Your task to perform on an android device: Go to notification settings Image 0: 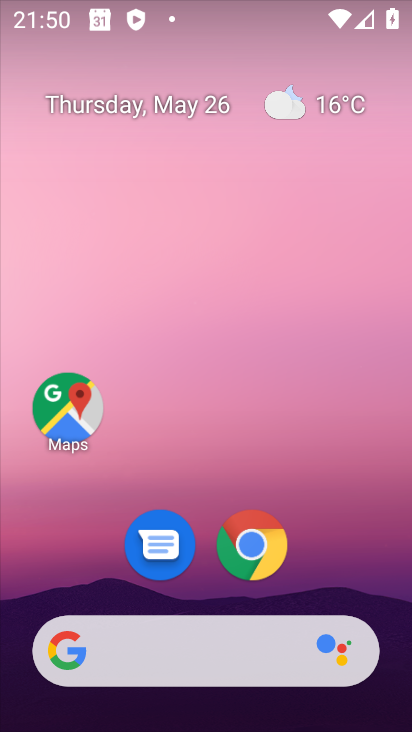
Step 0: drag from (308, 572) to (263, 68)
Your task to perform on an android device: Go to notification settings Image 1: 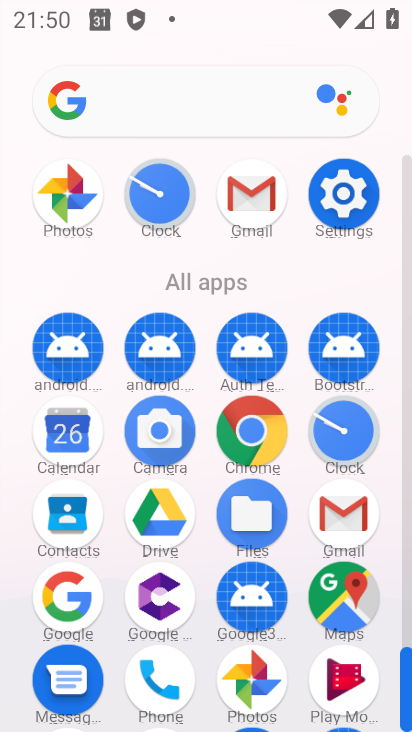
Step 1: click (307, 207)
Your task to perform on an android device: Go to notification settings Image 2: 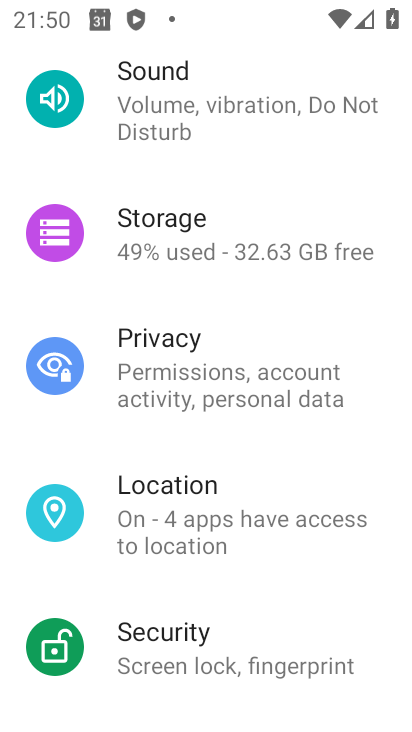
Step 2: drag from (176, 162) to (234, 642)
Your task to perform on an android device: Go to notification settings Image 3: 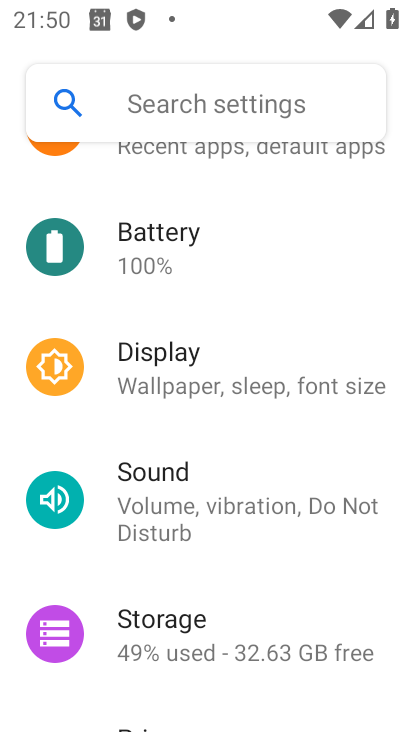
Step 3: drag from (194, 173) to (219, 390)
Your task to perform on an android device: Go to notification settings Image 4: 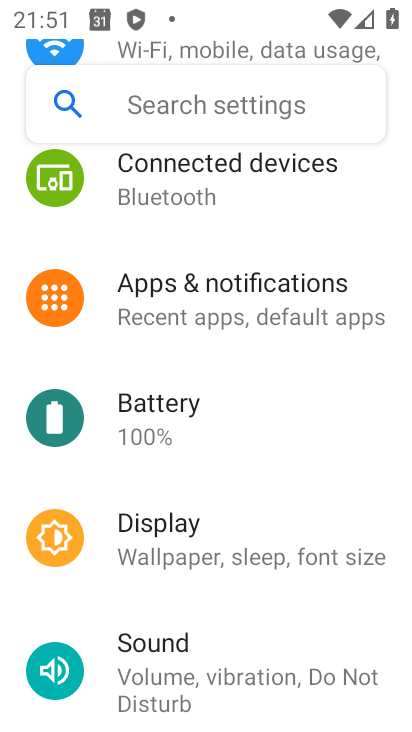
Step 4: click (188, 315)
Your task to perform on an android device: Go to notification settings Image 5: 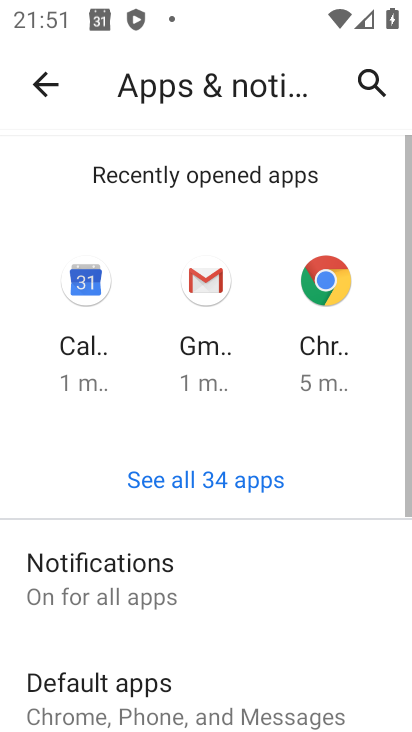
Step 5: click (176, 580)
Your task to perform on an android device: Go to notification settings Image 6: 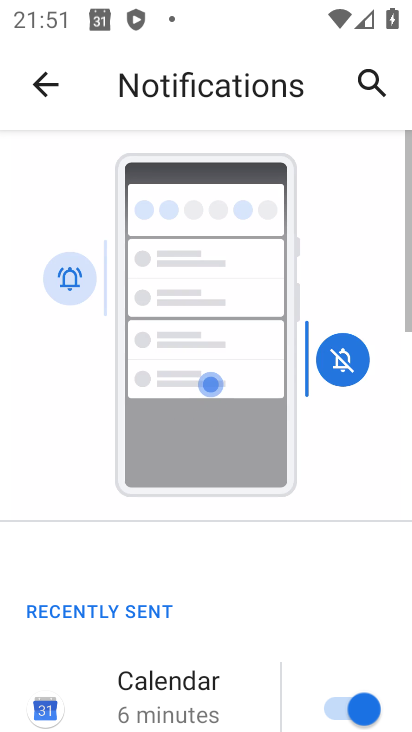
Step 6: drag from (275, 655) to (310, 40)
Your task to perform on an android device: Go to notification settings Image 7: 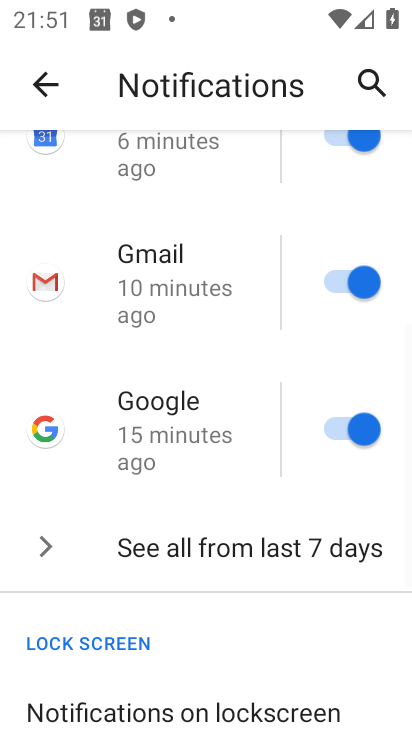
Step 7: drag from (220, 683) to (220, 238)
Your task to perform on an android device: Go to notification settings Image 8: 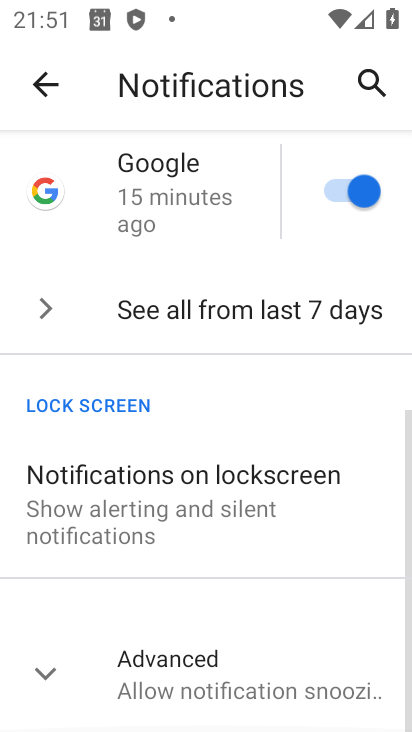
Step 8: click (119, 695)
Your task to perform on an android device: Go to notification settings Image 9: 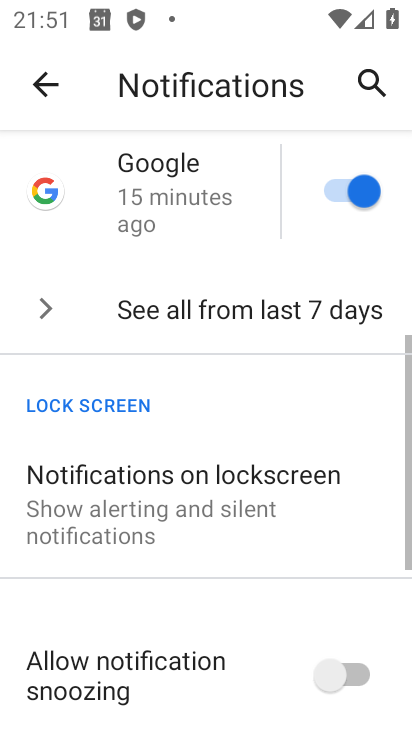
Step 9: drag from (218, 655) to (314, 703)
Your task to perform on an android device: Go to notification settings Image 10: 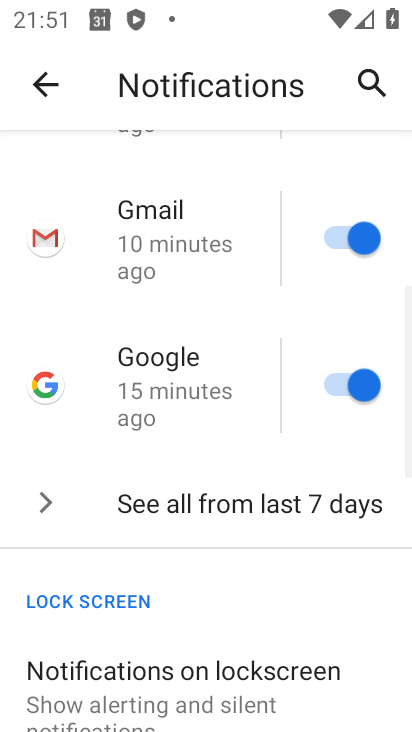
Step 10: drag from (190, 150) to (252, 647)
Your task to perform on an android device: Go to notification settings Image 11: 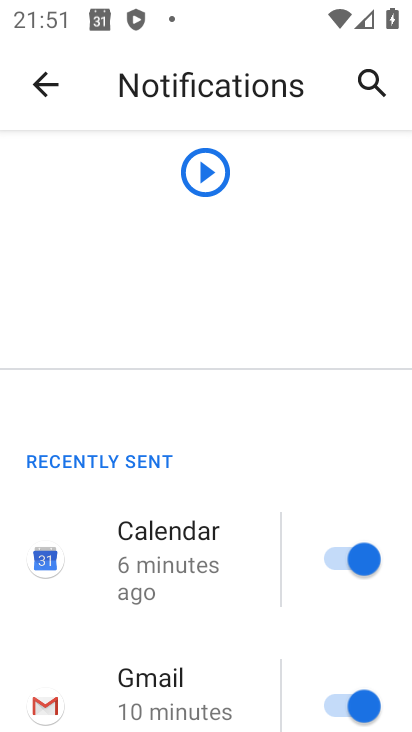
Step 11: drag from (276, 650) to (275, 71)
Your task to perform on an android device: Go to notification settings Image 12: 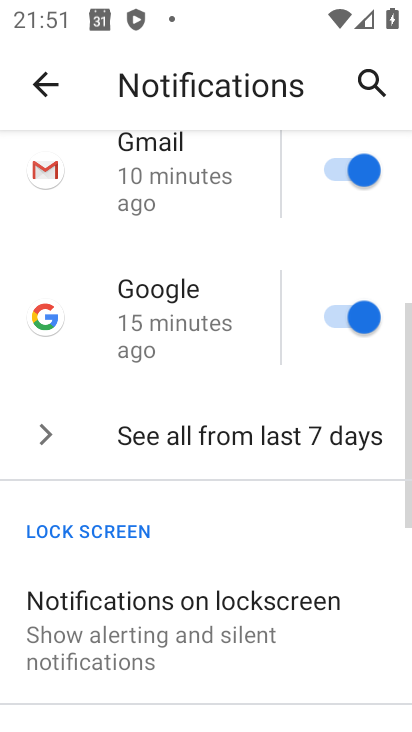
Step 12: drag from (263, 673) to (245, 115)
Your task to perform on an android device: Go to notification settings Image 13: 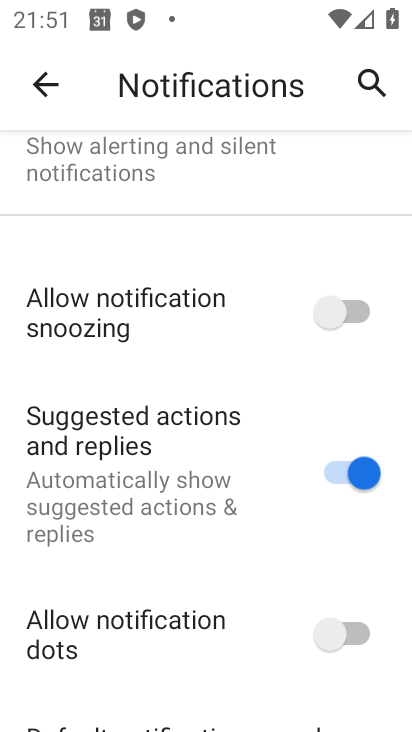
Step 13: click (343, 474)
Your task to perform on an android device: Go to notification settings Image 14: 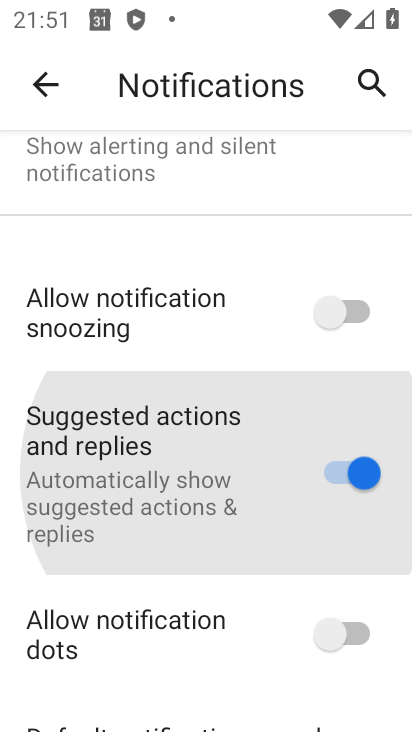
Step 14: click (318, 322)
Your task to perform on an android device: Go to notification settings Image 15: 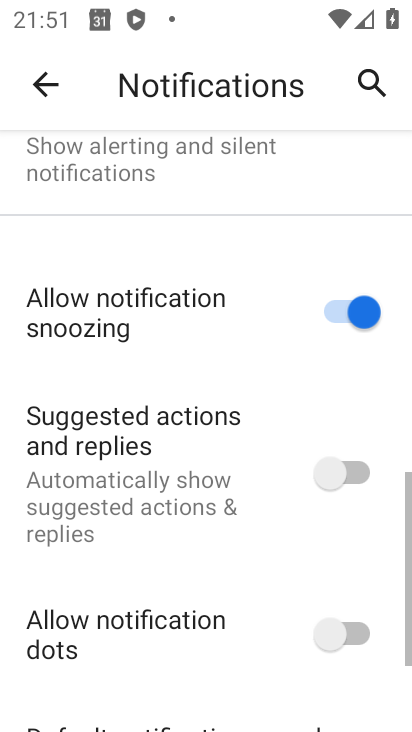
Step 15: click (328, 622)
Your task to perform on an android device: Go to notification settings Image 16: 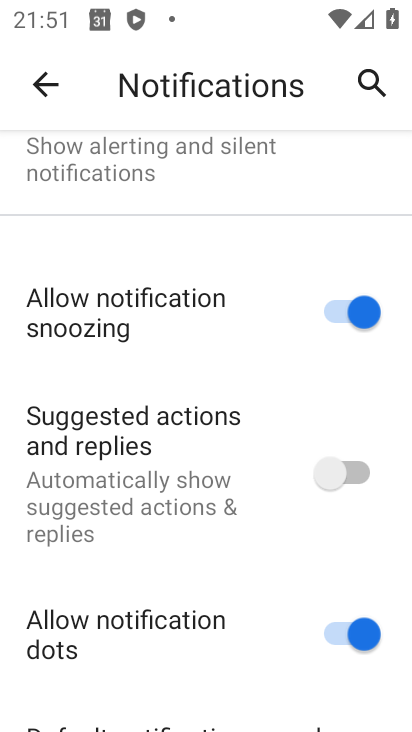
Step 16: task complete